Your task to perform on an android device: Search for "corsair k70" on ebay.com, select the first entry, add it to the cart, then select checkout. Image 0: 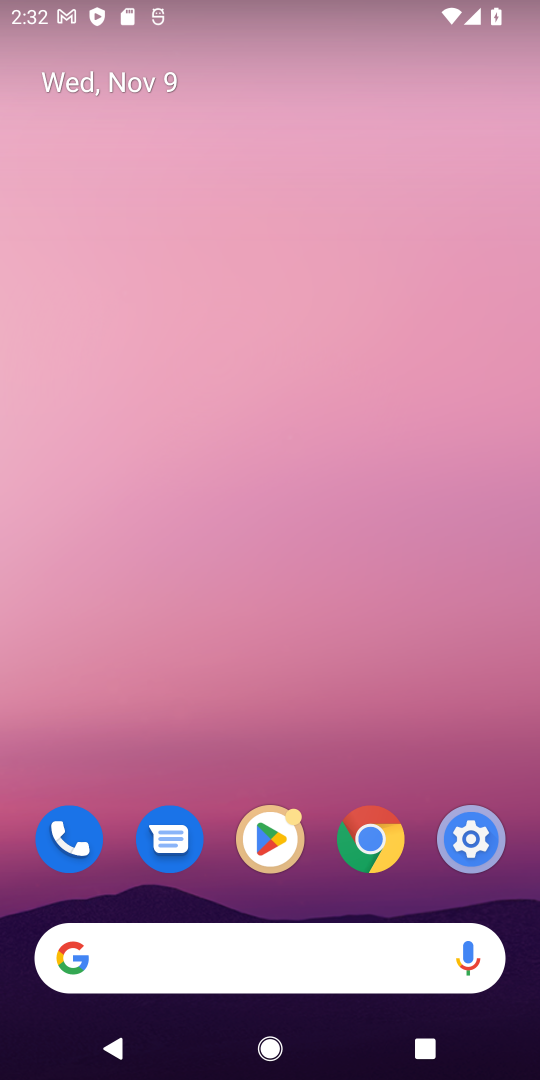
Step 0: click (242, 963)
Your task to perform on an android device: Search for "corsair k70" on ebay.com, select the first entry, add it to the cart, then select checkout. Image 1: 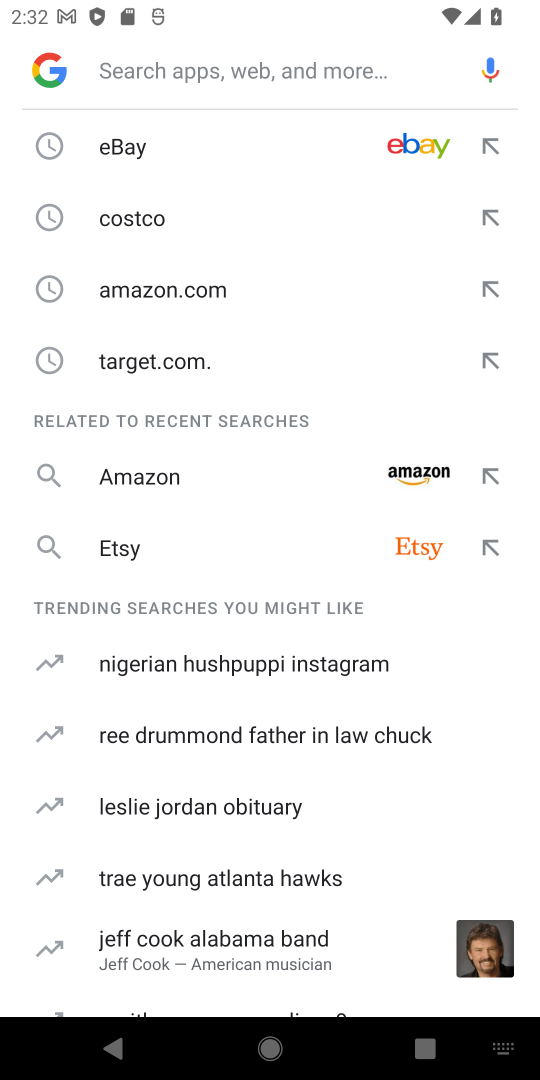
Step 1: click (113, 159)
Your task to perform on an android device: Search for "corsair k70" on ebay.com, select the first entry, add it to the cart, then select checkout. Image 2: 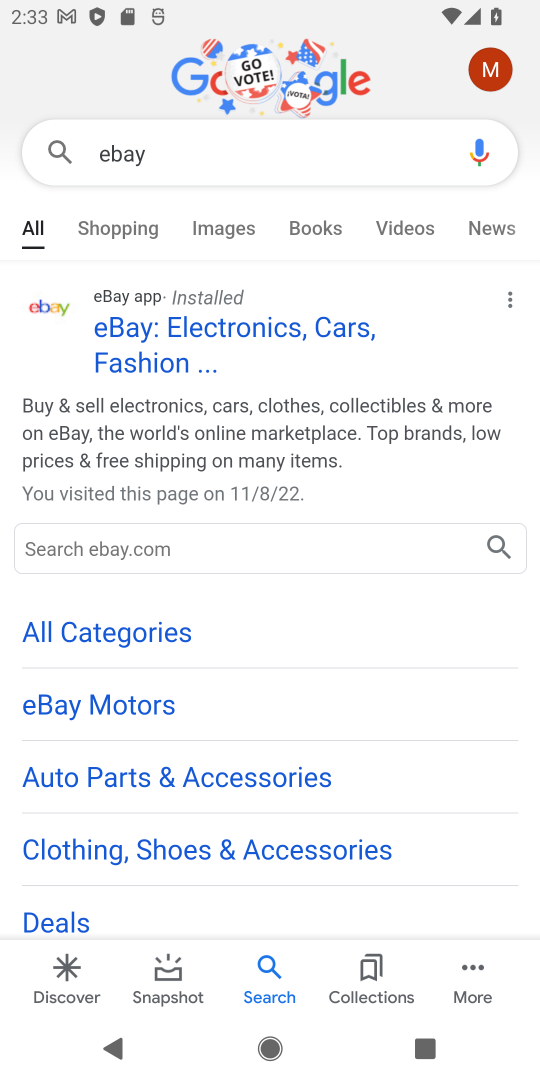
Step 2: click (144, 327)
Your task to perform on an android device: Search for "corsair k70" on ebay.com, select the first entry, add it to the cart, then select checkout. Image 3: 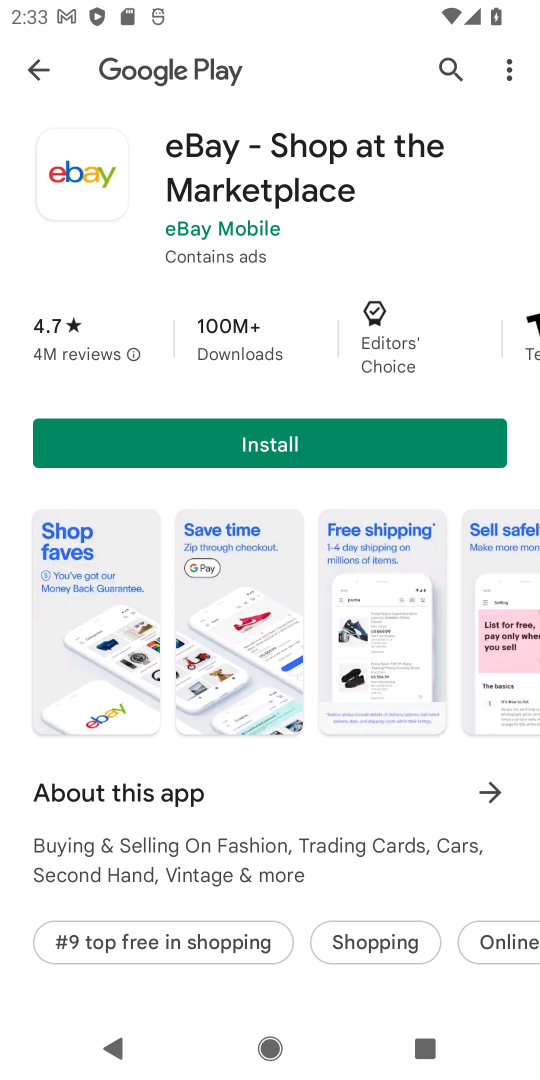
Step 3: task complete